Your task to perform on an android device: Go to Google maps Image 0: 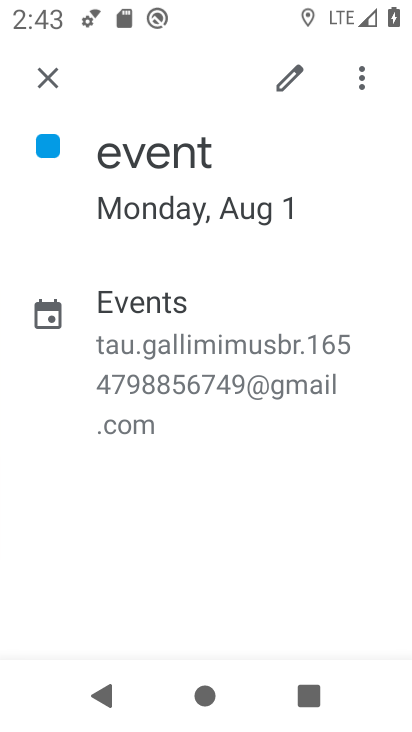
Step 0: press home button
Your task to perform on an android device: Go to Google maps Image 1: 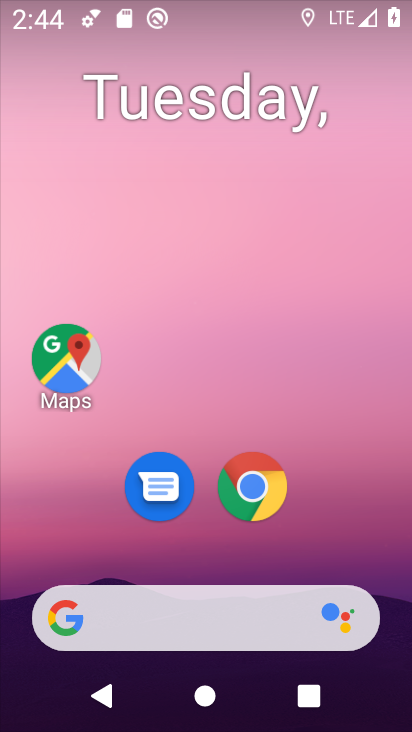
Step 1: drag from (329, 520) to (344, 120)
Your task to perform on an android device: Go to Google maps Image 2: 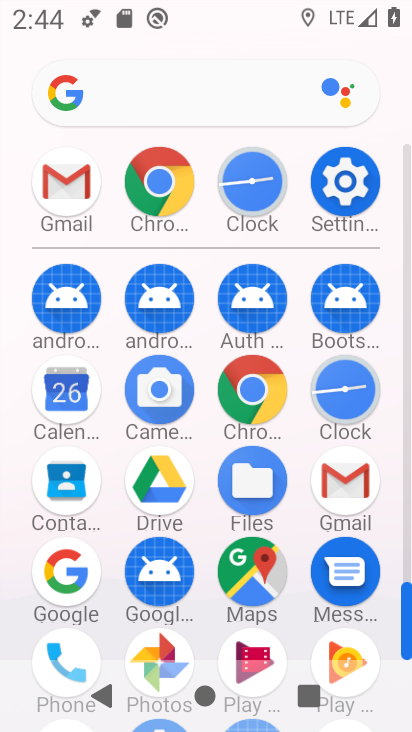
Step 2: click (257, 585)
Your task to perform on an android device: Go to Google maps Image 3: 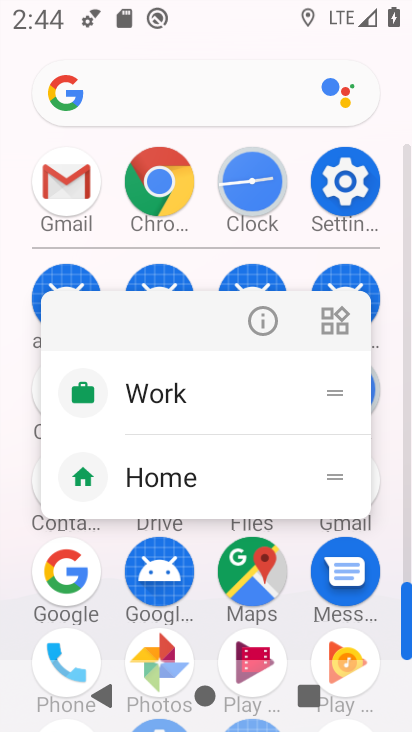
Step 3: click (258, 584)
Your task to perform on an android device: Go to Google maps Image 4: 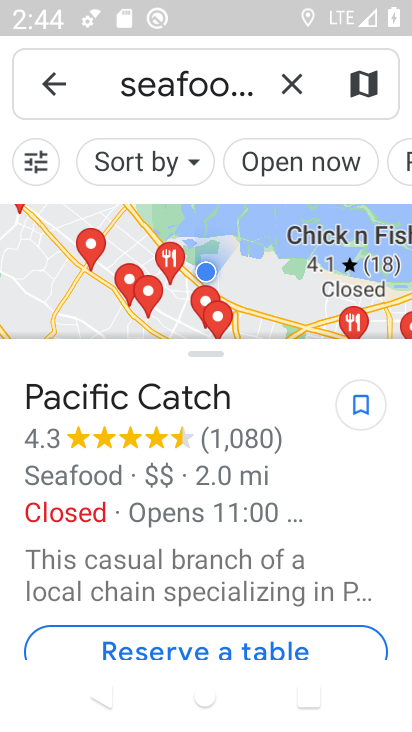
Step 4: task complete